Your task to perform on an android device: stop showing notifications on the lock screen Image 0: 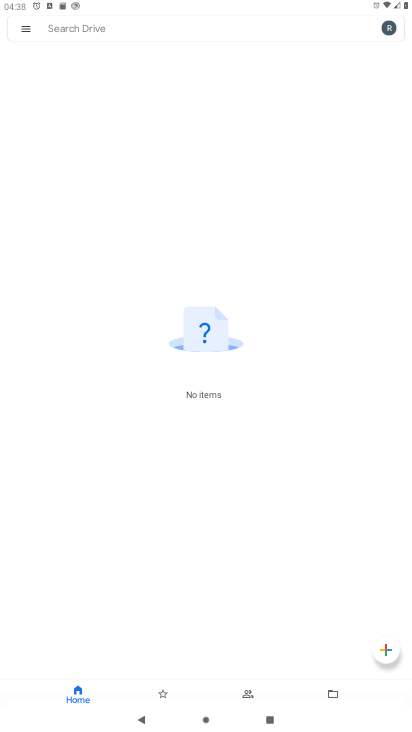
Step 0: press home button
Your task to perform on an android device: stop showing notifications on the lock screen Image 1: 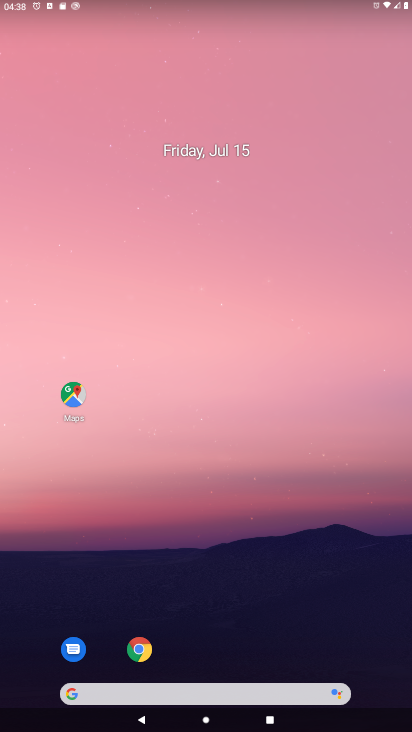
Step 1: drag from (388, 670) to (346, 123)
Your task to perform on an android device: stop showing notifications on the lock screen Image 2: 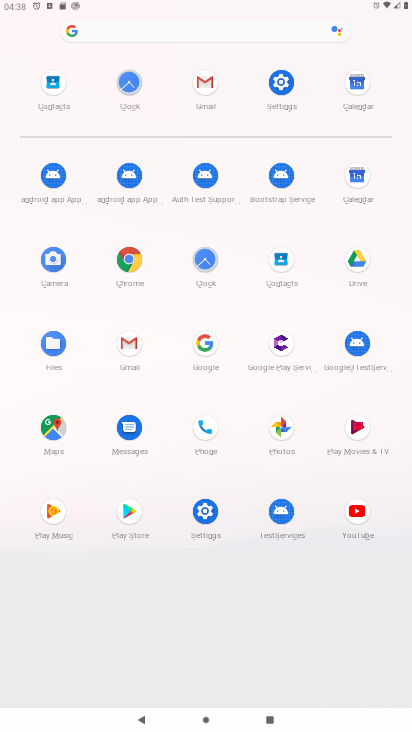
Step 2: click (205, 511)
Your task to perform on an android device: stop showing notifications on the lock screen Image 3: 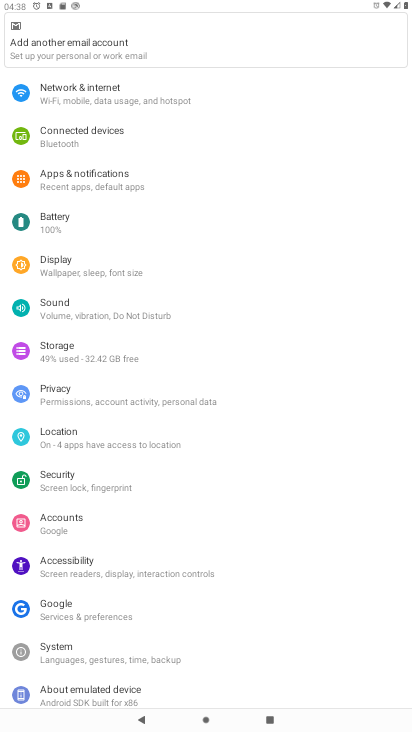
Step 3: click (88, 175)
Your task to perform on an android device: stop showing notifications on the lock screen Image 4: 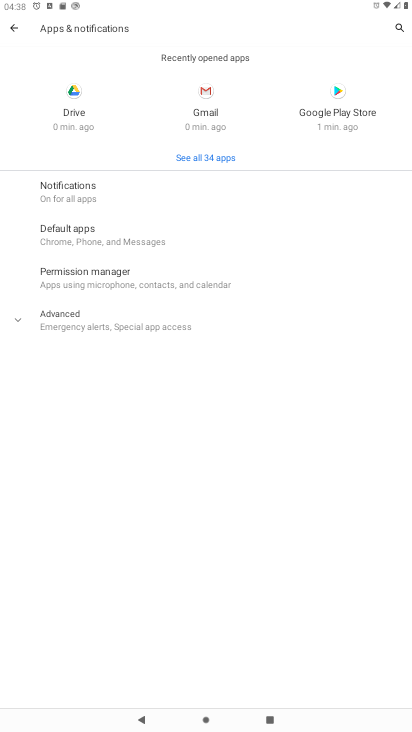
Step 4: click (59, 187)
Your task to perform on an android device: stop showing notifications on the lock screen Image 5: 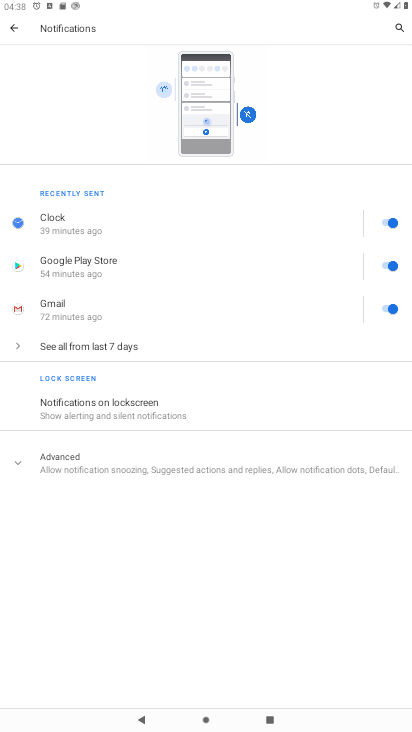
Step 5: click (102, 407)
Your task to perform on an android device: stop showing notifications on the lock screen Image 6: 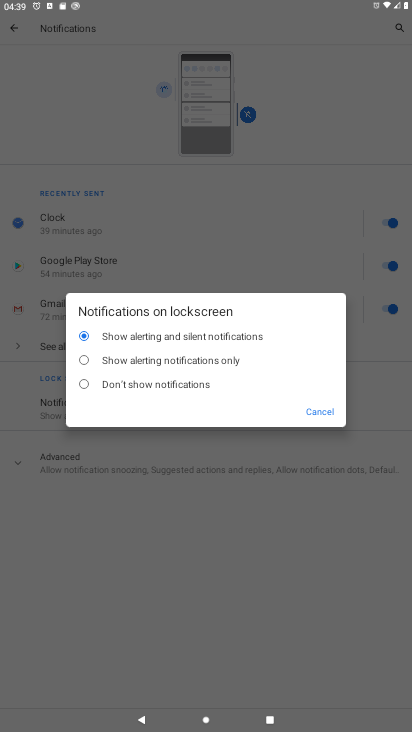
Step 6: click (85, 388)
Your task to perform on an android device: stop showing notifications on the lock screen Image 7: 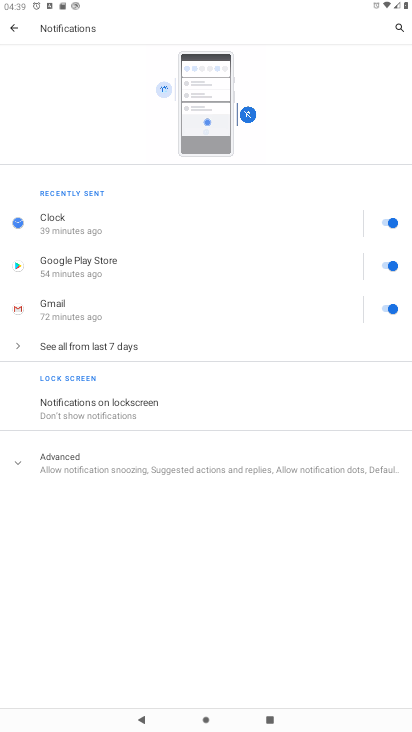
Step 7: task complete